Your task to perform on an android device: Show me productivity apps on the Play Store Image 0: 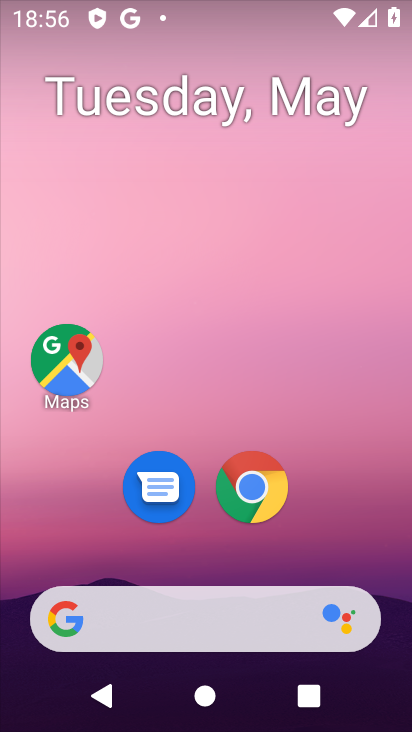
Step 0: drag from (336, 529) to (246, 34)
Your task to perform on an android device: Show me productivity apps on the Play Store Image 1: 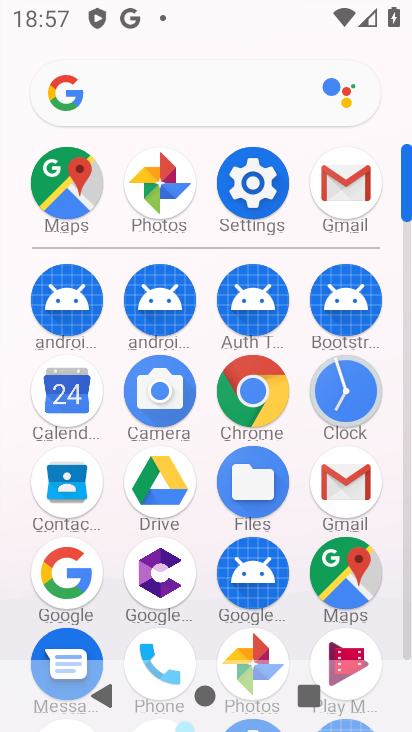
Step 1: drag from (193, 647) to (138, 143)
Your task to perform on an android device: Show me productivity apps on the Play Store Image 2: 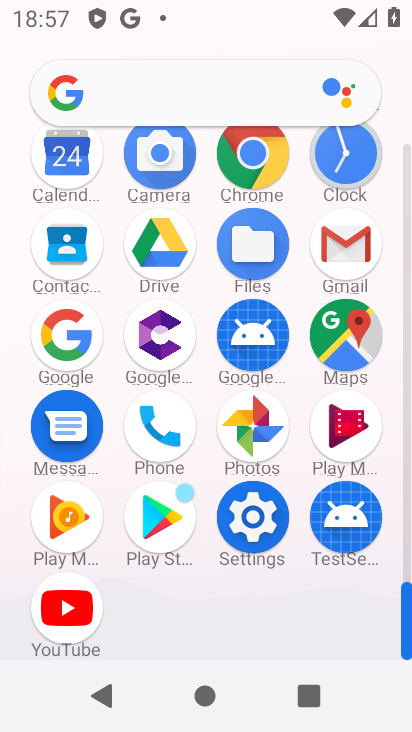
Step 2: click (147, 518)
Your task to perform on an android device: Show me productivity apps on the Play Store Image 3: 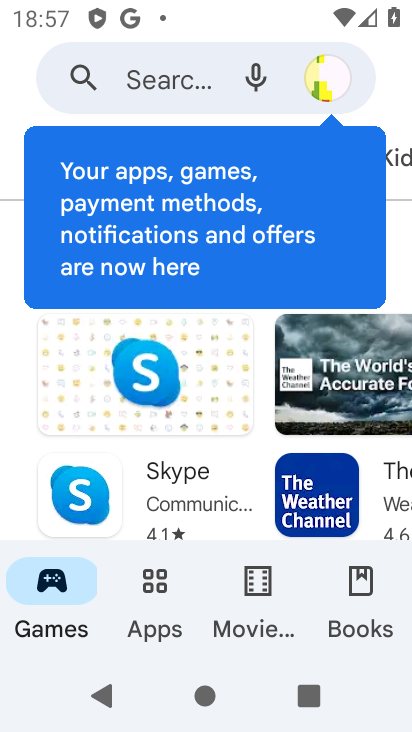
Step 3: click (143, 589)
Your task to perform on an android device: Show me productivity apps on the Play Store Image 4: 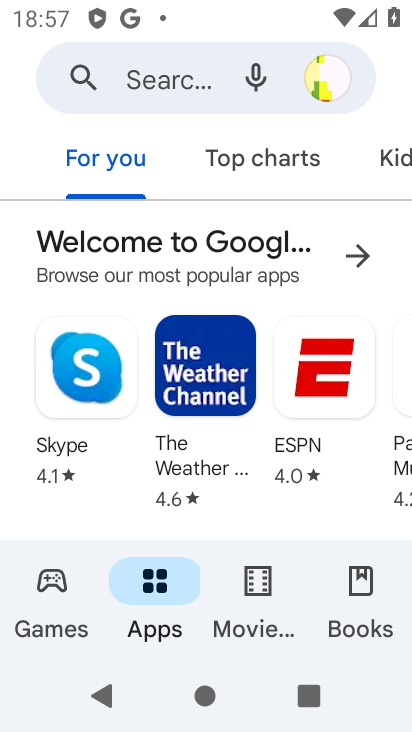
Step 4: task complete